Your task to perform on an android device: turn on the 24-hour format for clock Image 0: 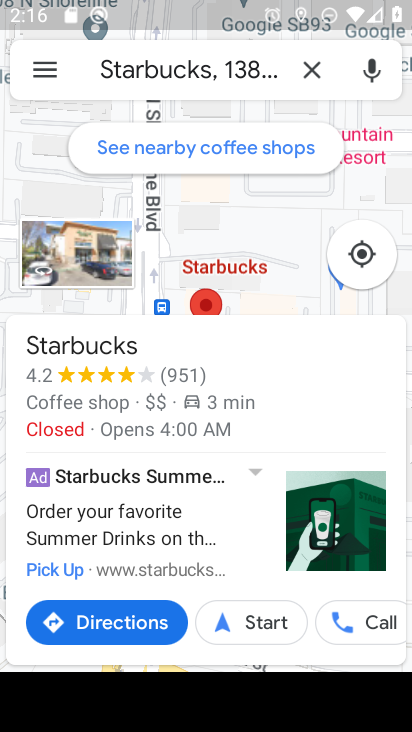
Step 0: press home button
Your task to perform on an android device: turn on the 24-hour format for clock Image 1: 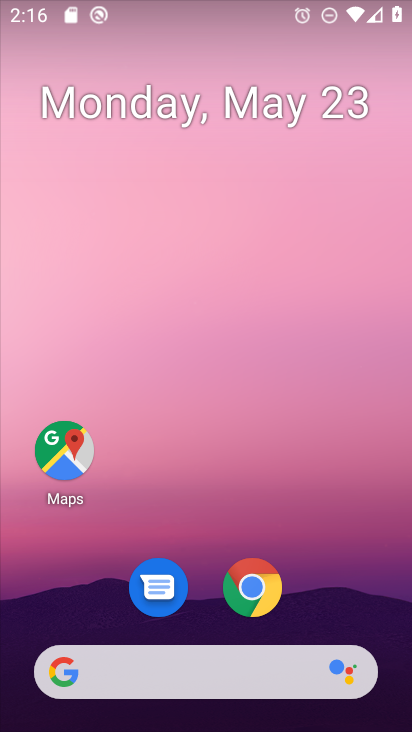
Step 1: drag from (364, 615) to (295, 87)
Your task to perform on an android device: turn on the 24-hour format for clock Image 2: 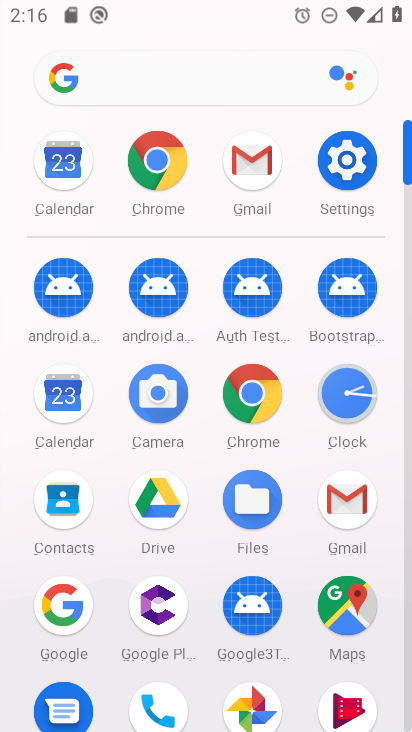
Step 2: click (367, 422)
Your task to perform on an android device: turn on the 24-hour format for clock Image 3: 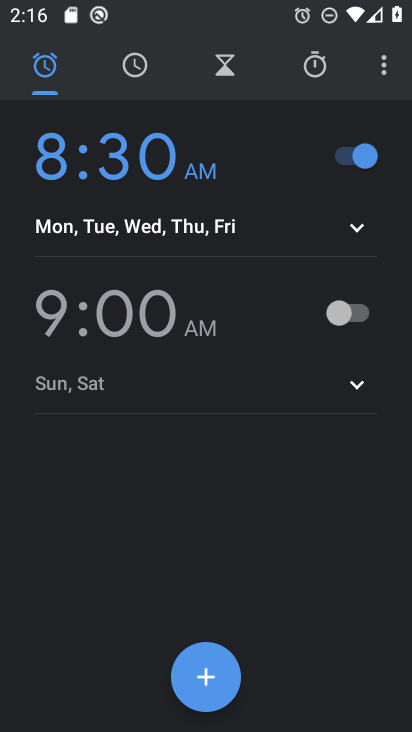
Step 3: click (381, 72)
Your task to perform on an android device: turn on the 24-hour format for clock Image 4: 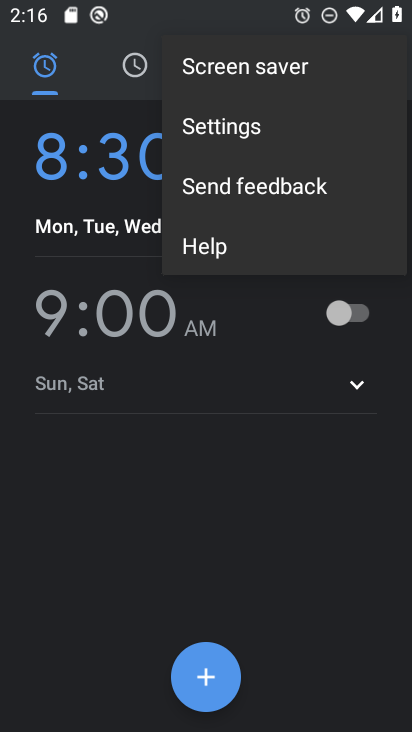
Step 4: click (203, 137)
Your task to perform on an android device: turn on the 24-hour format for clock Image 5: 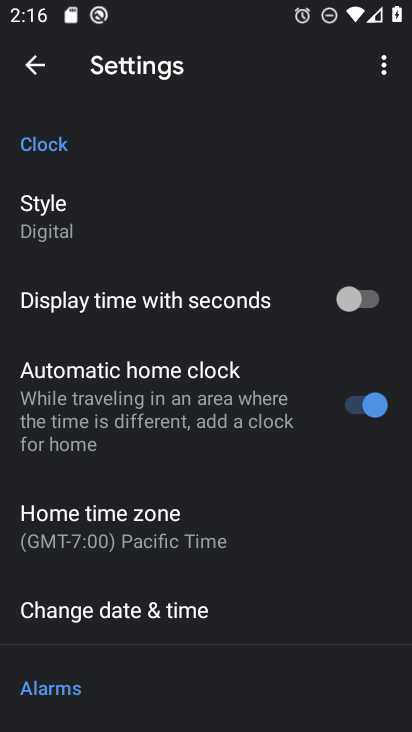
Step 5: drag from (200, 554) to (193, 339)
Your task to perform on an android device: turn on the 24-hour format for clock Image 6: 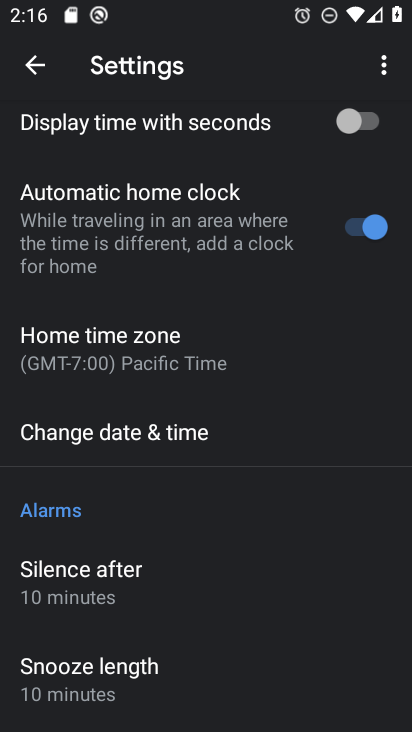
Step 6: click (238, 447)
Your task to perform on an android device: turn on the 24-hour format for clock Image 7: 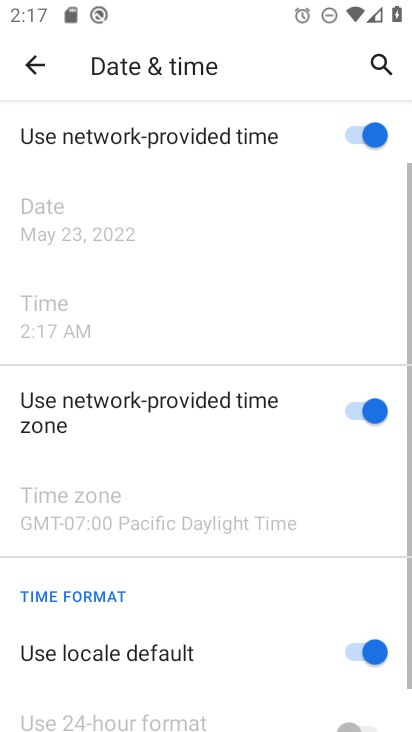
Step 7: drag from (224, 621) to (213, 234)
Your task to perform on an android device: turn on the 24-hour format for clock Image 8: 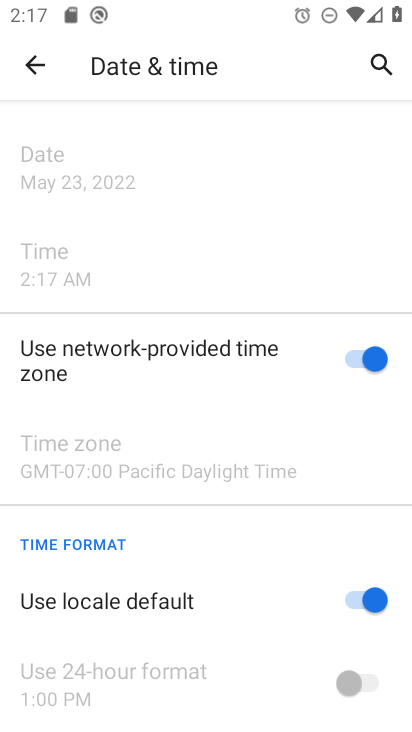
Step 8: click (349, 595)
Your task to perform on an android device: turn on the 24-hour format for clock Image 9: 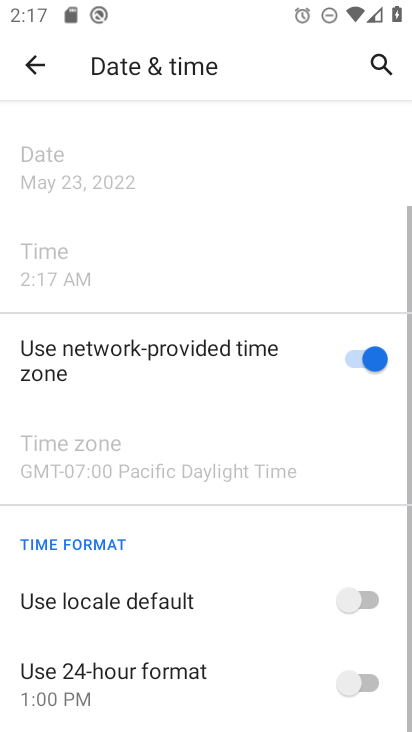
Step 9: click (365, 696)
Your task to perform on an android device: turn on the 24-hour format for clock Image 10: 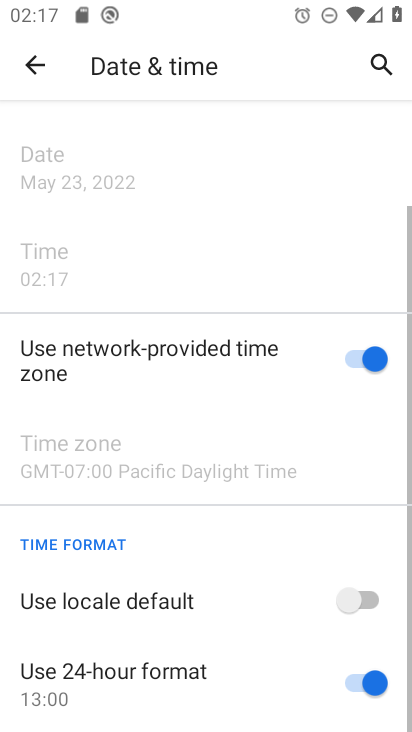
Step 10: task complete